Your task to perform on an android device: Open Maps and search for coffee Image 0: 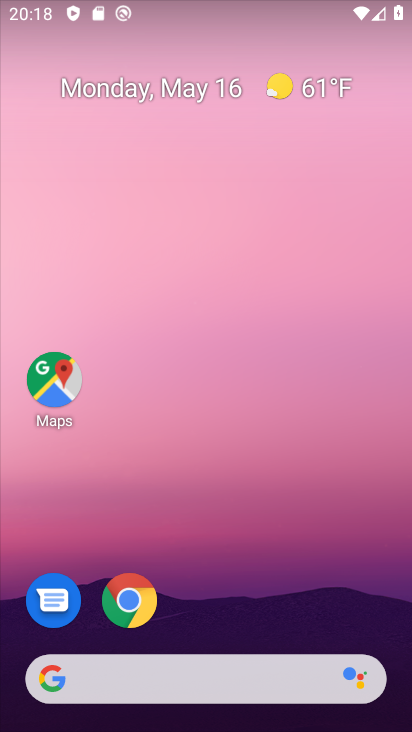
Step 0: click (62, 378)
Your task to perform on an android device: Open Maps and search for coffee Image 1: 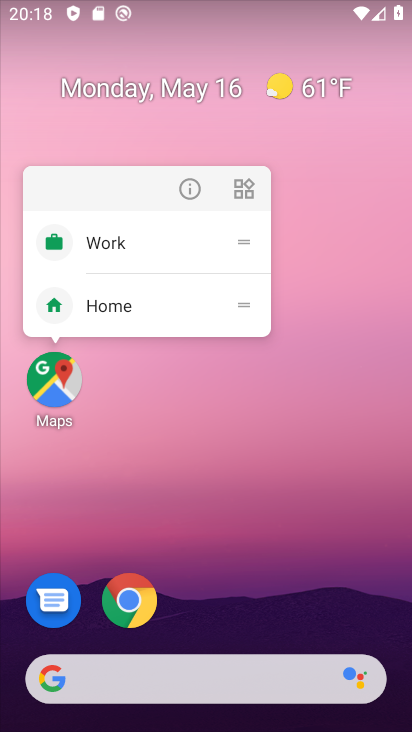
Step 1: click (62, 381)
Your task to perform on an android device: Open Maps and search for coffee Image 2: 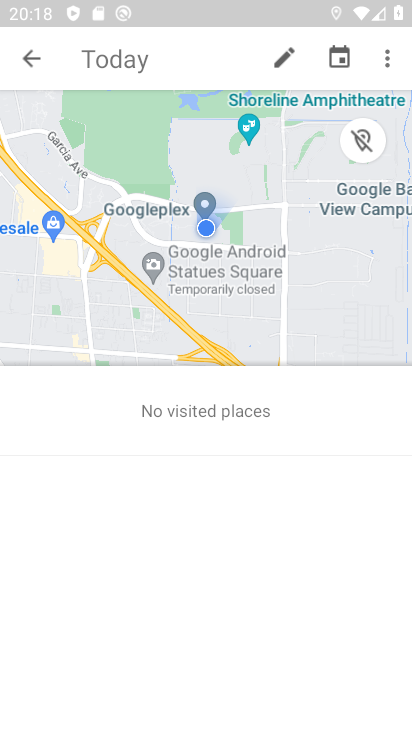
Step 2: click (30, 67)
Your task to perform on an android device: Open Maps and search for coffee Image 3: 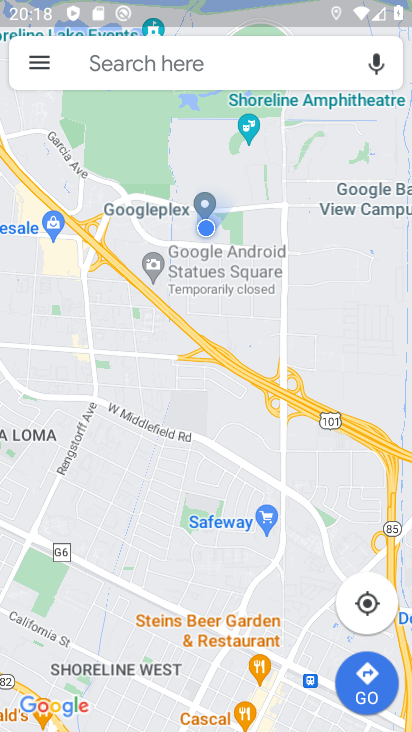
Step 3: click (142, 73)
Your task to perform on an android device: Open Maps and search for coffee Image 4: 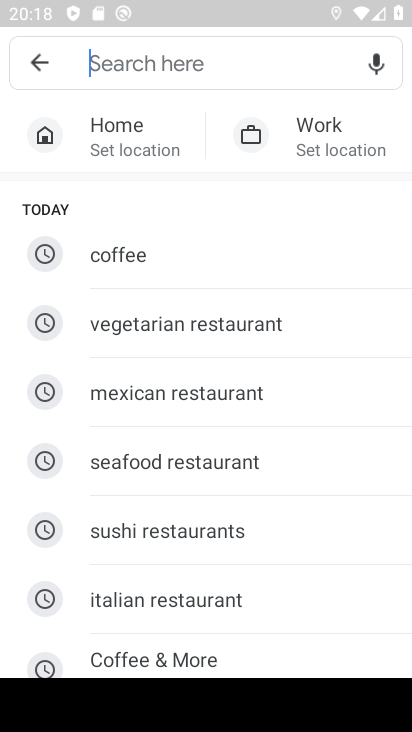
Step 4: type "Coffee"
Your task to perform on an android device: Open Maps and search for coffee Image 5: 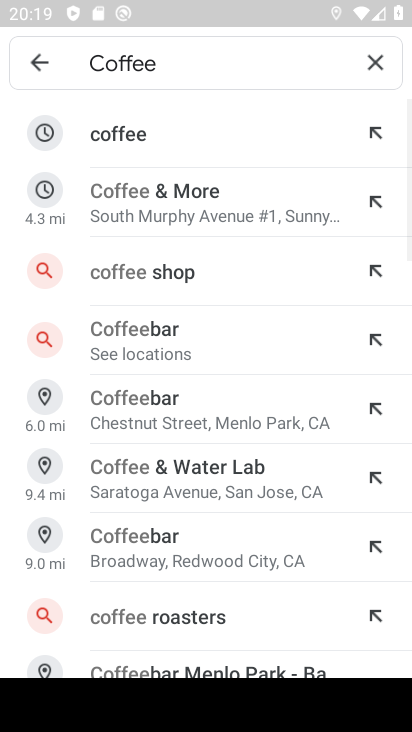
Step 5: click (168, 124)
Your task to perform on an android device: Open Maps and search for coffee Image 6: 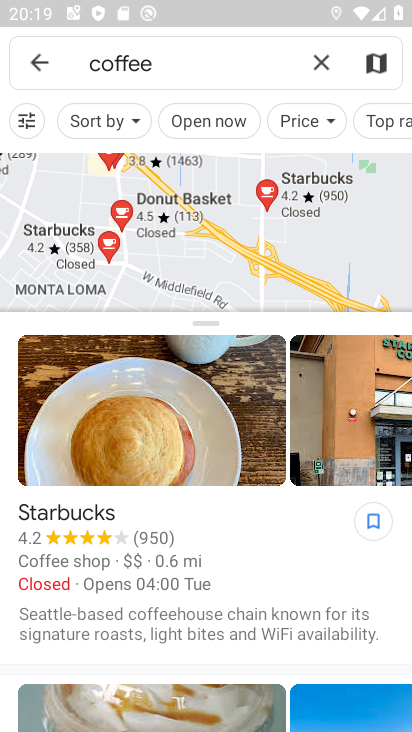
Step 6: task complete